Your task to perform on an android device: Set the phone to "Do not disturb". Image 0: 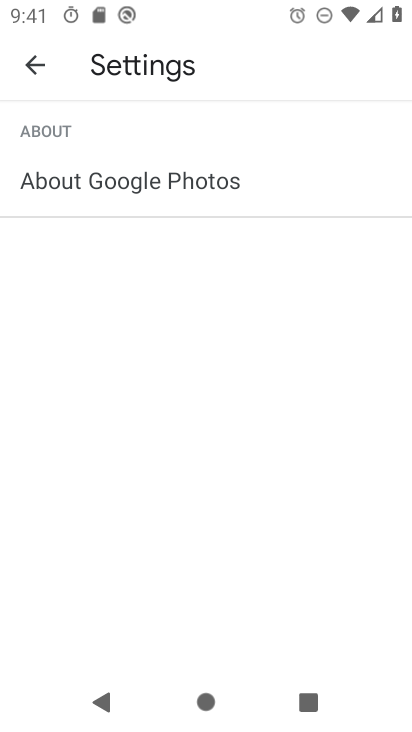
Step 0: press home button
Your task to perform on an android device: Set the phone to "Do not disturb". Image 1: 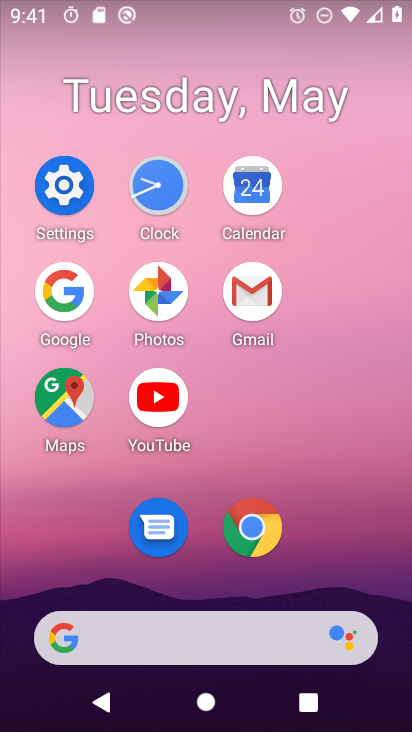
Step 1: click (62, 225)
Your task to perform on an android device: Set the phone to "Do not disturb". Image 2: 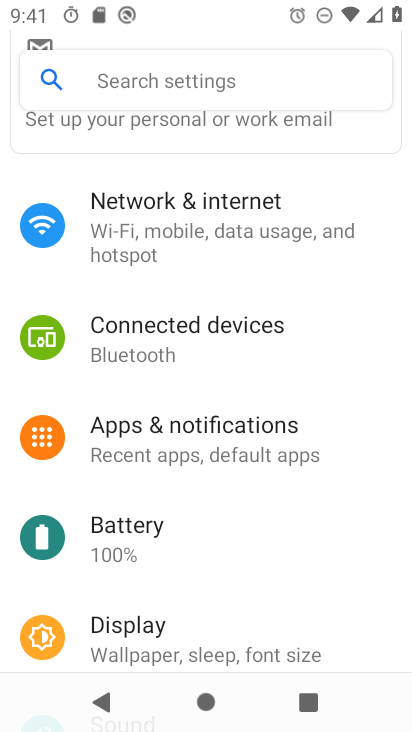
Step 2: drag from (250, 498) to (290, 171)
Your task to perform on an android device: Set the phone to "Do not disturb". Image 3: 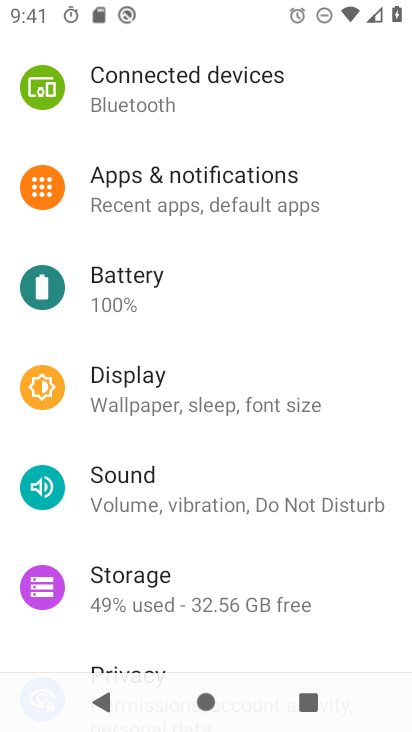
Step 3: click (215, 483)
Your task to perform on an android device: Set the phone to "Do not disturb". Image 4: 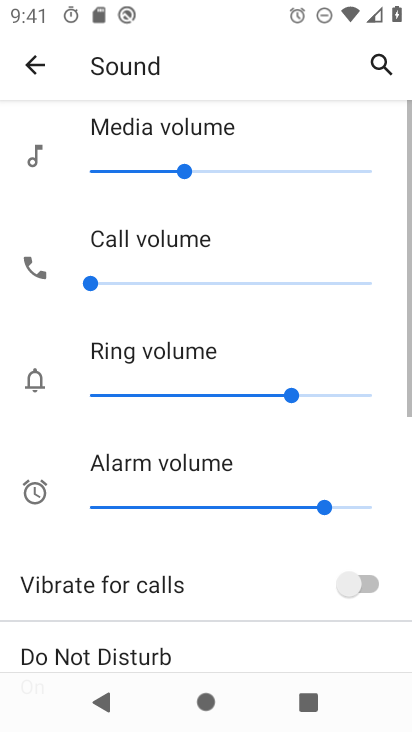
Step 4: task complete